Your task to perform on an android device: change the clock style Image 0: 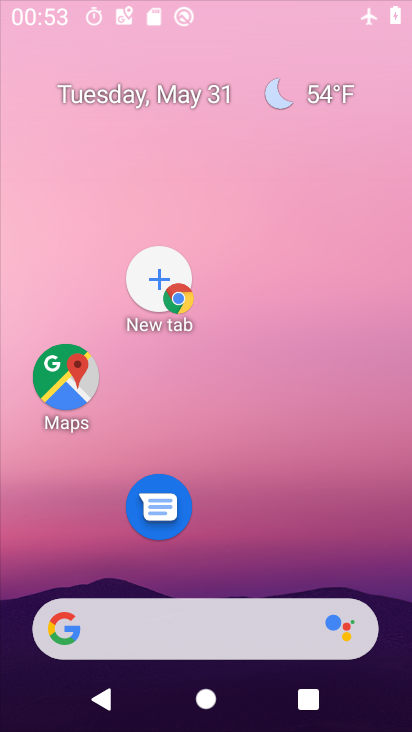
Step 0: click (38, 74)
Your task to perform on an android device: change the clock style Image 1: 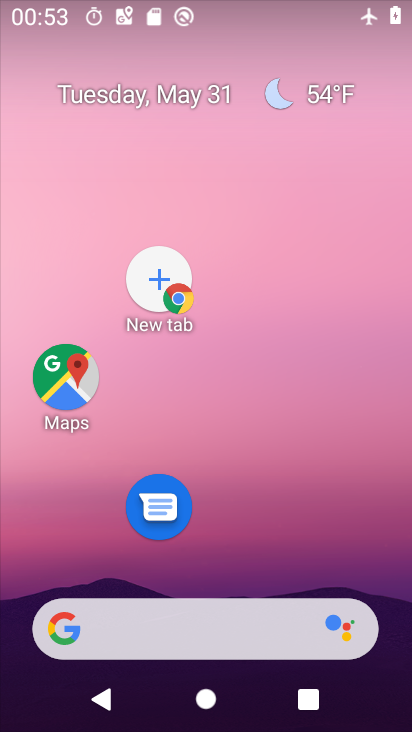
Step 1: drag from (240, 712) to (252, 187)
Your task to perform on an android device: change the clock style Image 2: 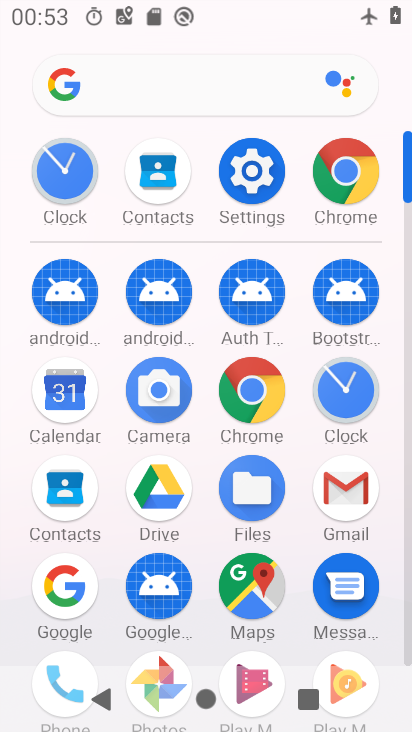
Step 2: click (346, 387)
Your task to perform on an android device: change the clock style Image 3: 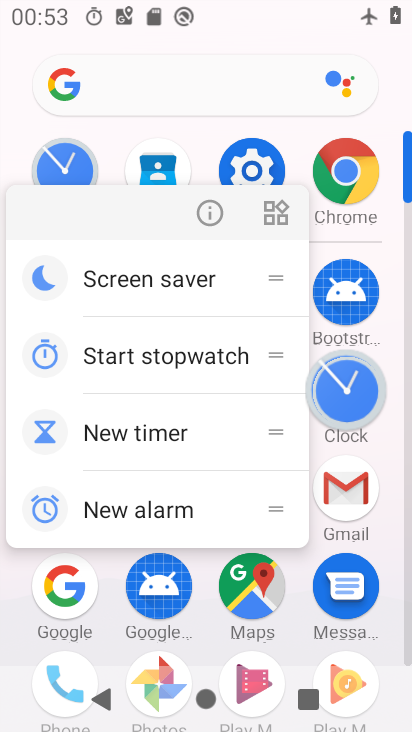
Step 3: click (355, 383)
Your task to perform on an android device: change the clock style Image 4: 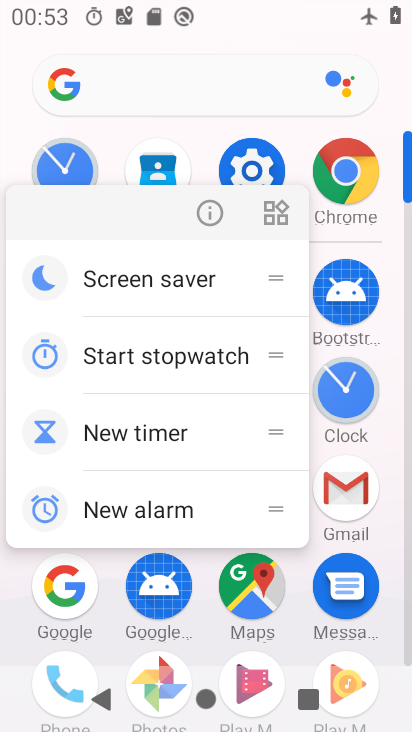
Step 4: click (340, 390)
Your task to perform on an android device: change the clock style Image 5: 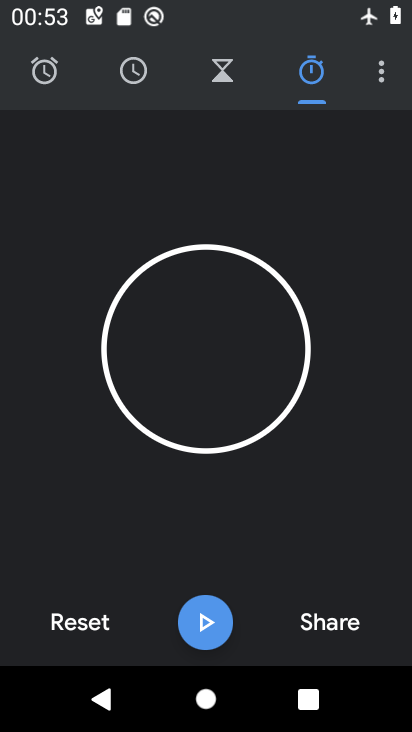
Step 5: click (346, 390)
Your task to perform on an android device: change the clock style Image 6: 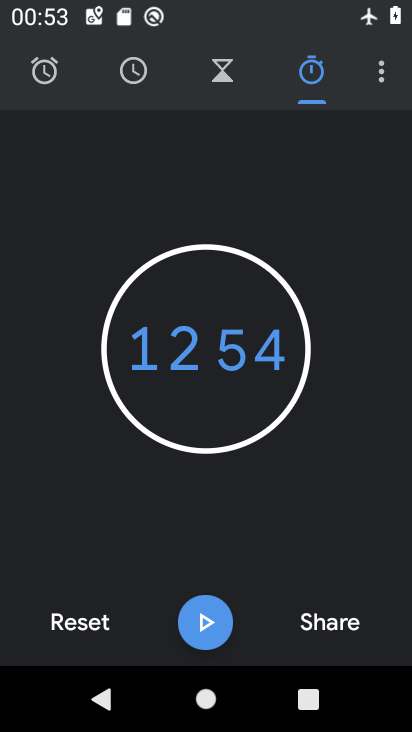
Step 6: click (343, 381)
Your task to perform on an android device: change the clock style Image 7: 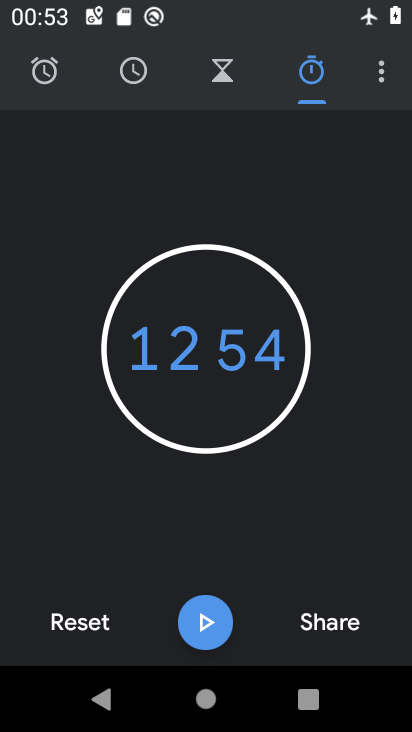
Step 7: click (367, 71)
Your task to perform on an android device: change the clock style Image 8: 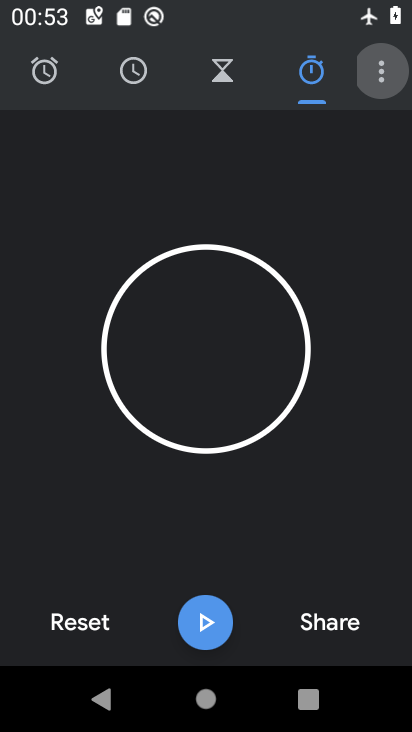
Step 8: click (375, 78)
Your task to perform on an android device: change the clock style Image 9: 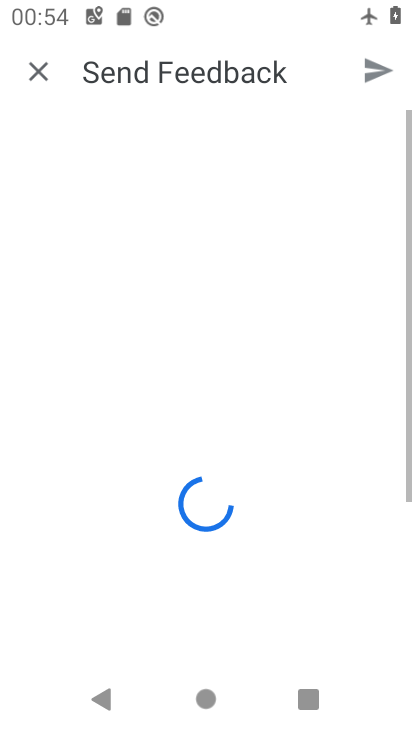
Step 9: drag from (387, 85) to (39, 70)
Your task to perform on an android device: change the clock style Image 10: 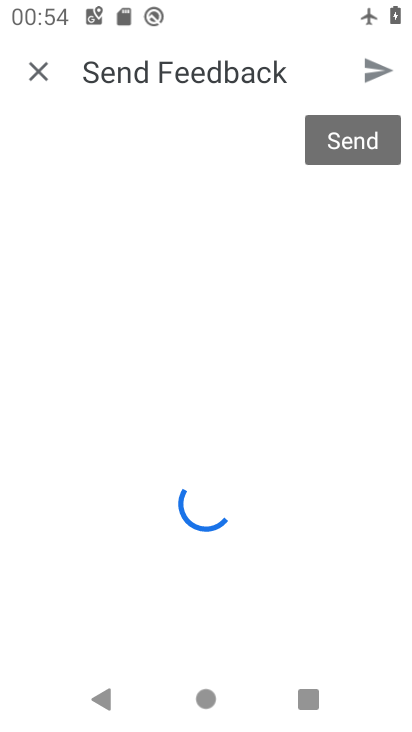
Step 10: click (39, 70)
Your task to perform on an android device: change the clock style Image 11: 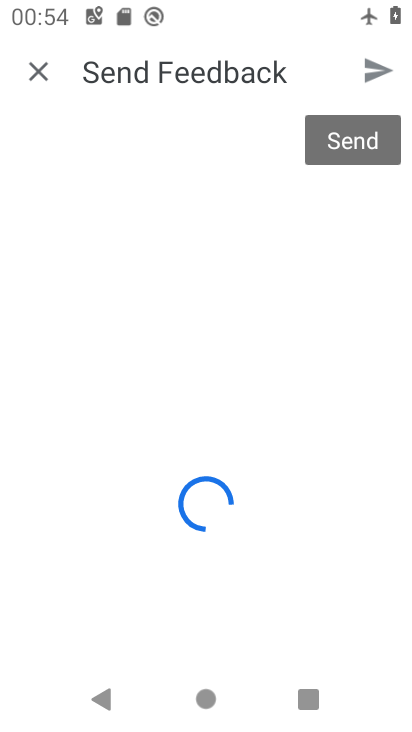
Step 11: click (39, 70)
Your task to perform on an android device: change the clock style Image 12: 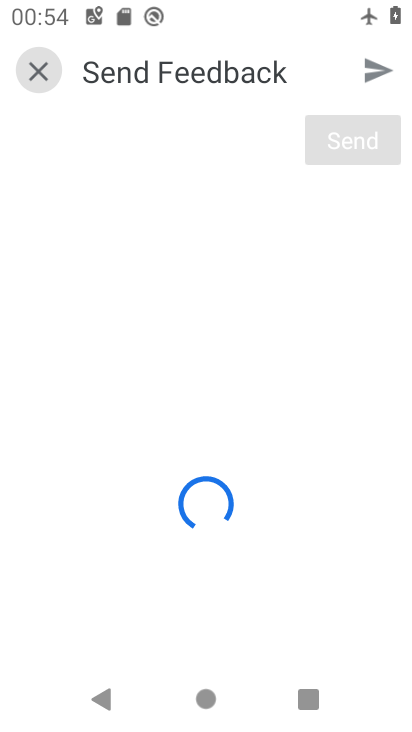
Step 12: click (39, 70)
Your task to perform on an android device: change the clock style Image 13: 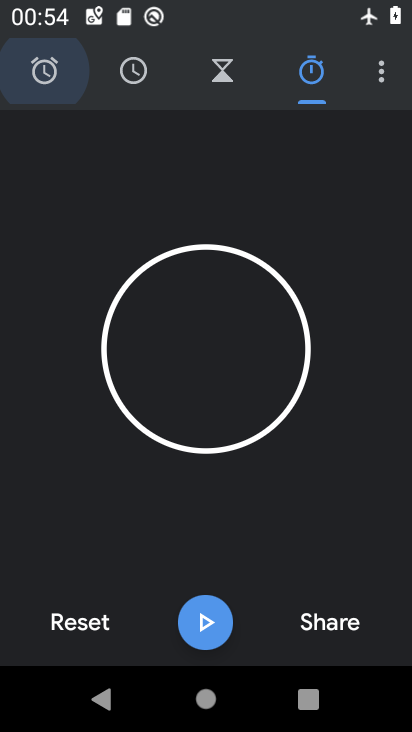
Step 13: click (39, 70)
Your task to perform on an android device: change the clock style Image 14: 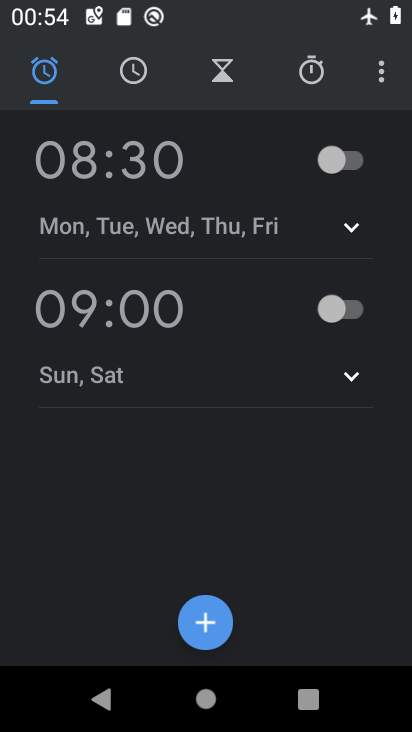
Step 14: click (383, 85)
Your task to perform on an android device: change the clock style Image 15: 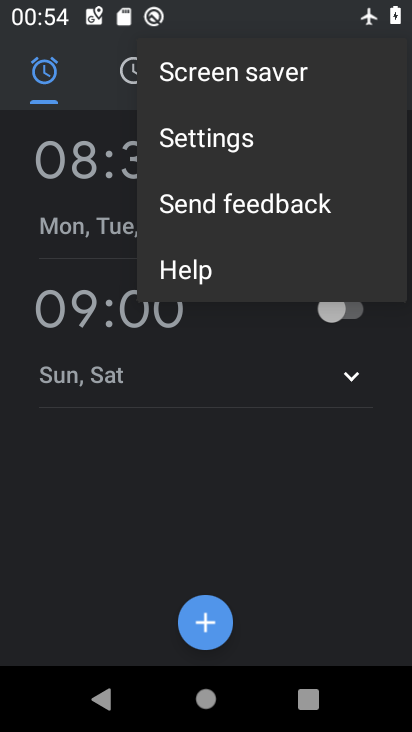
Step 15: click (197, 128)
Your task to perform on an android device: change the clock style Image 16: 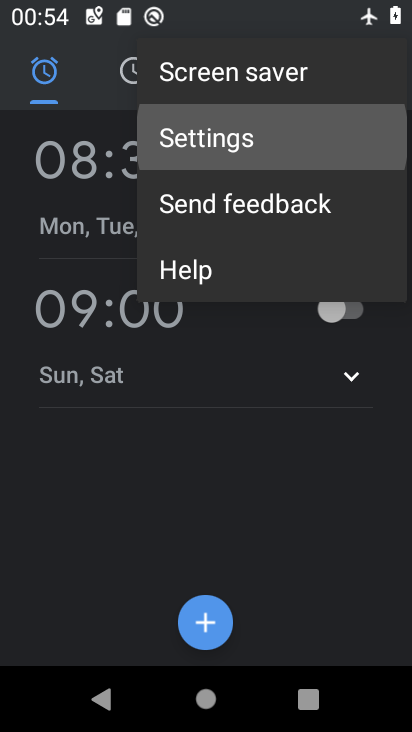
Step 16: click (197, 128)
Your task to perform on an android device: change the clock style Image 17: 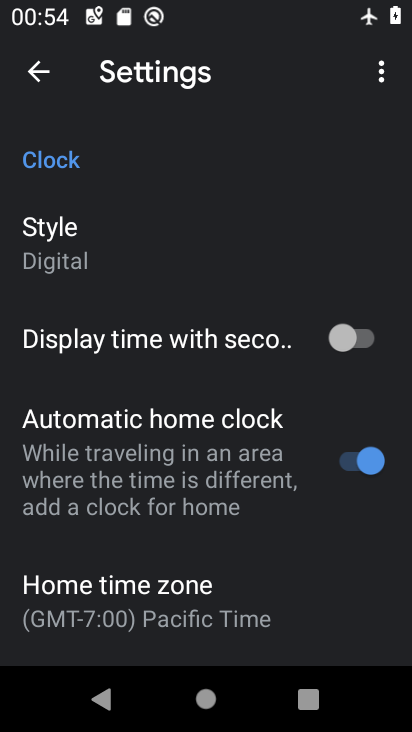
Step 17: click (115, 247)
Your task to perform on an android device: change the clock style Image 18: 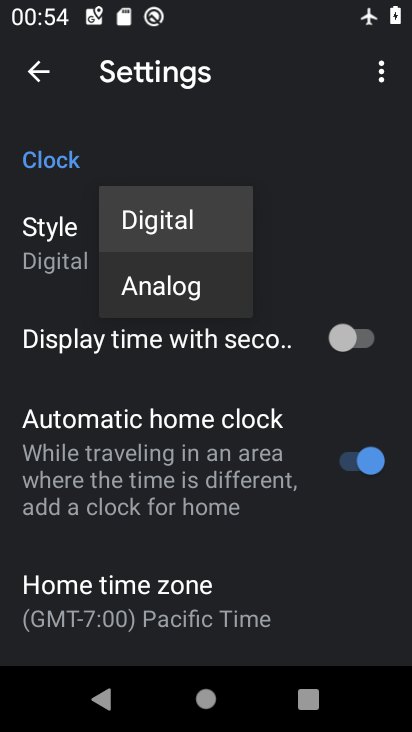
Step 18: click (141, 288)
Your task to perform on an android device: change the clock style Image 19: 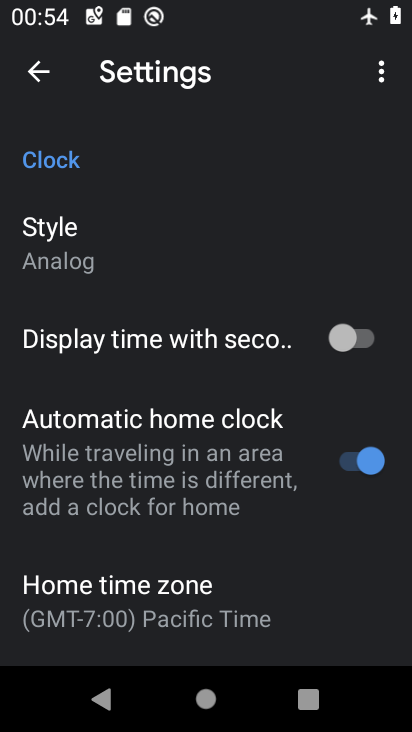
Step 19: task complete